Your task to perform on an android device: Is it going to rain tomorrow? Image 0: 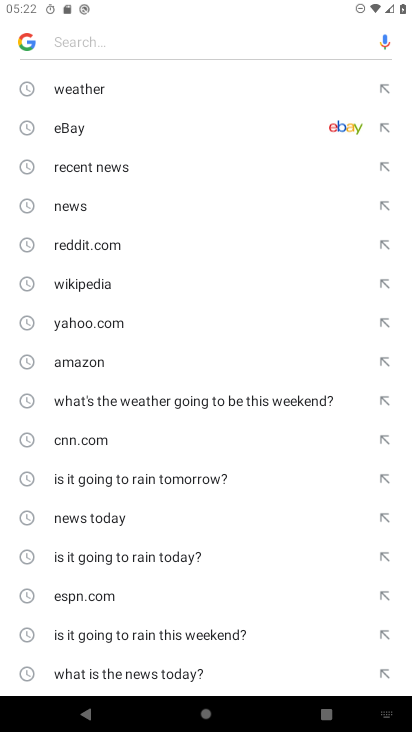
Step 0: press home button
Your task to perform on an android device: Is it going to rain tomorrow? Image 1: 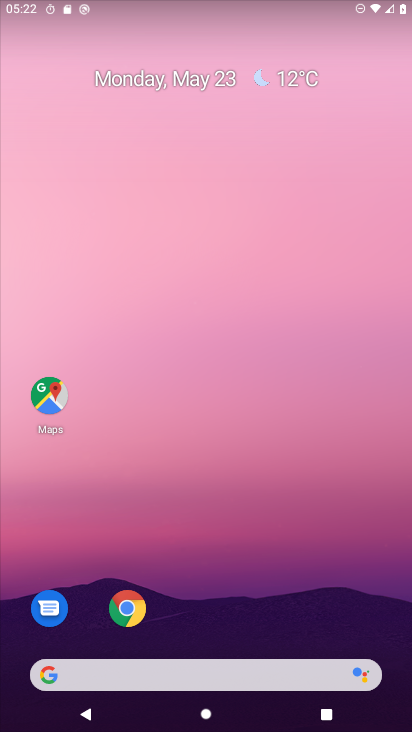
Step 1: click (283, 80)
Your task to perform on an android device: Is it going to rain tomorrow? Image 2: 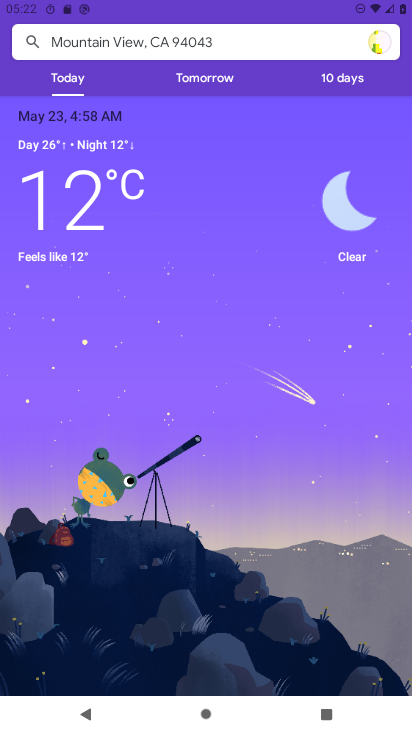
Step 2: click (202, 80)
Your task to perform on an android device: Is it going to rain tomorrow? Image 3: 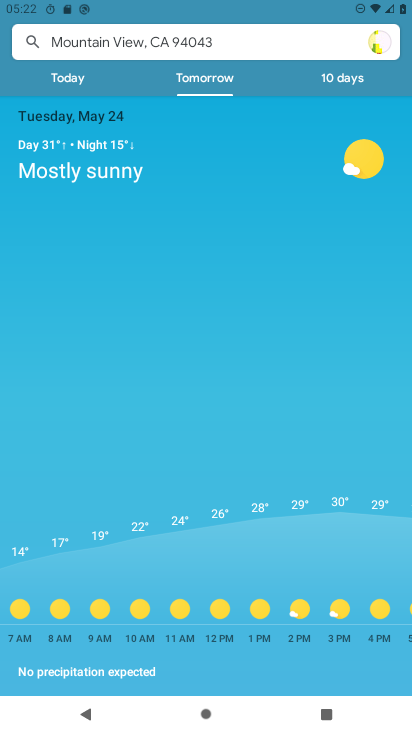
Step 3: task complete